Your task to perform on an android device: read, delete, or share a saved page in the chrome app Image 0: 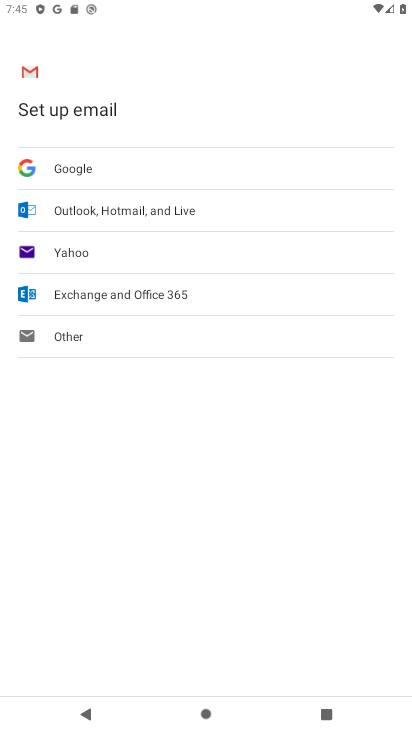
Step 0: press home button
Your task to perform on an android device: read, delete, or share a saved page in the chrome app Image 1: 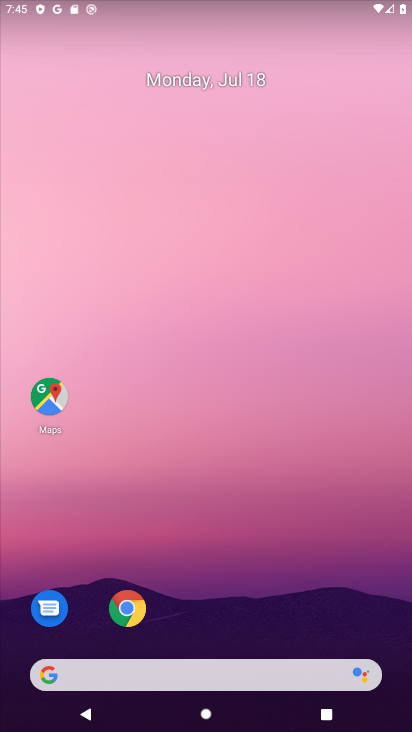
Step 1: click (127, 605)
Your task to perform on an android device: read, delete, or share a saved page in the chrome app Image 2: 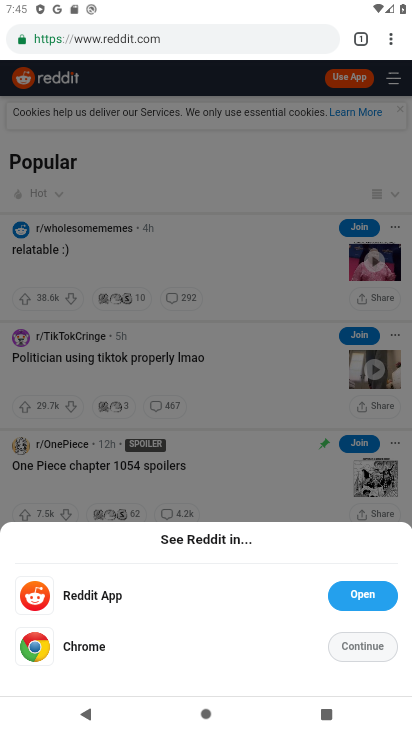
Step 2: click (389, 43)
Your task to perform on an android device: read, delete, or share a saved page in the chrome app Image 3: 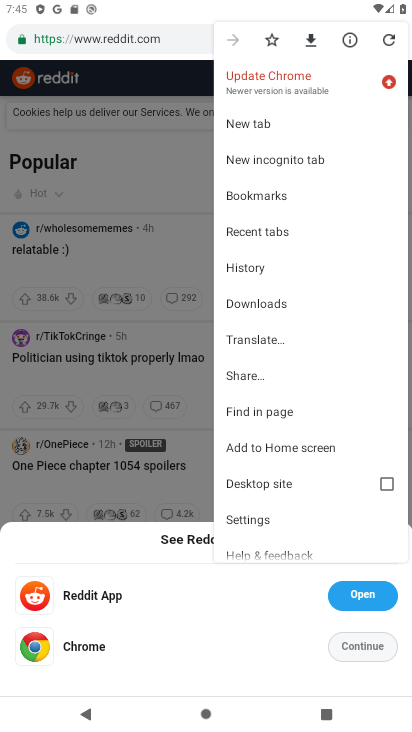
Step 3: click (253, 521)
Your task to perform on an android device: read, delete, or share a saved page in the chrome app Image 4: 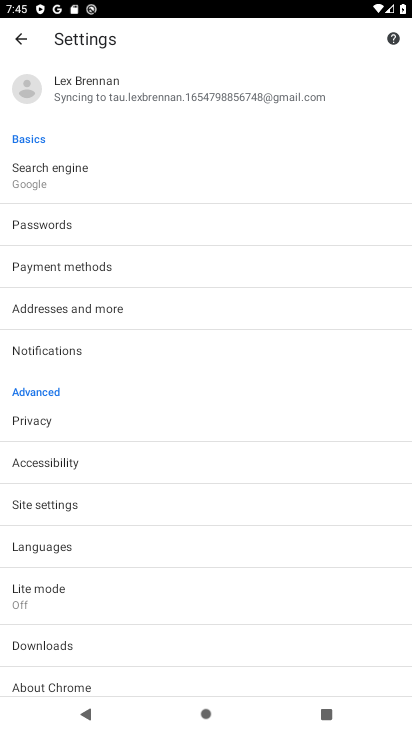
Step 4: click (47, 648)
Your task to perform on an android device: read, delete, or share a saved page in the chrome app Image 5: 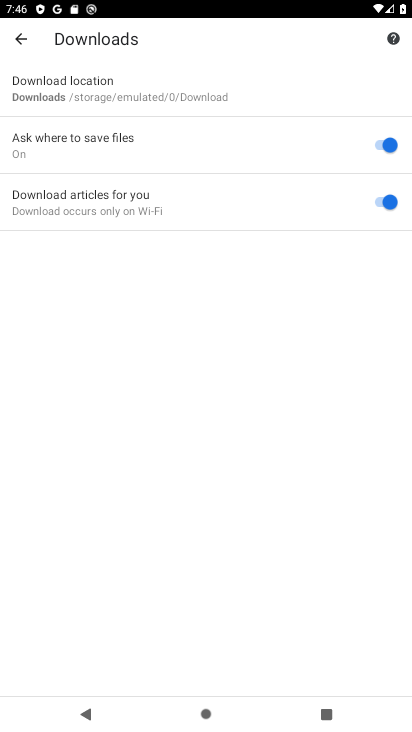
Step 5: task complete